Your task to perform on an android device: turn off priority inbox in the gmail app Image 0: 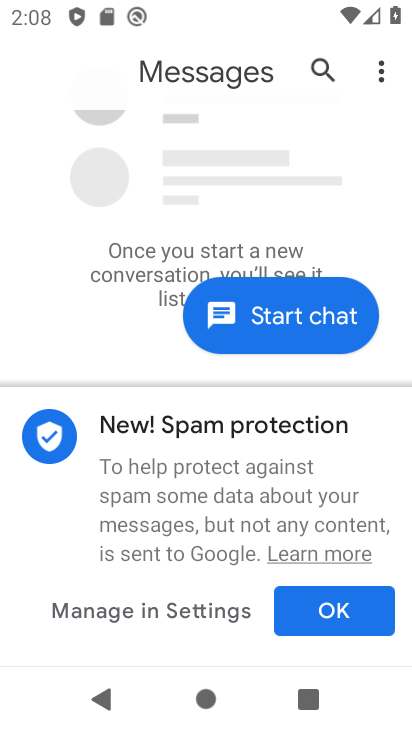
Step 0: press home button
Your task to perform on an android device: turn off priority inbox in the gmail app Image 1: 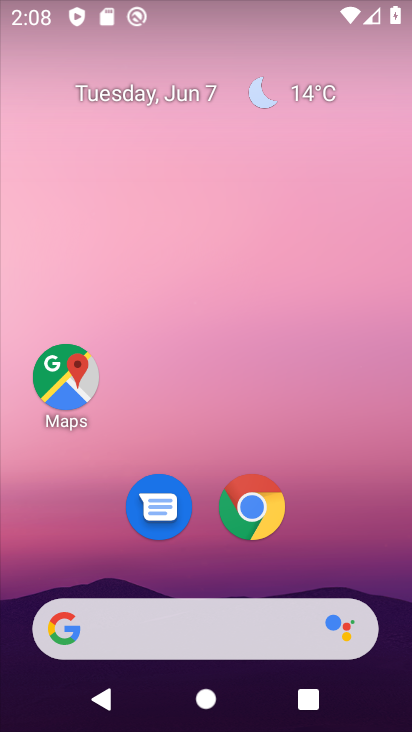
Step 1: drag from (367, 547) to (321, 40)
Your task to perform on an android device: turn off priority inbox in the gmail app Image 2: 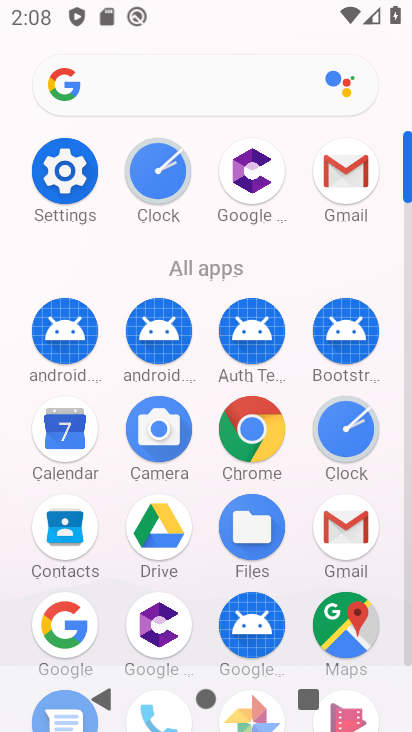
Step 2: click (360, 184)
Your task to perform on an android device: turn off priority inbox in the gmail app Image 3: 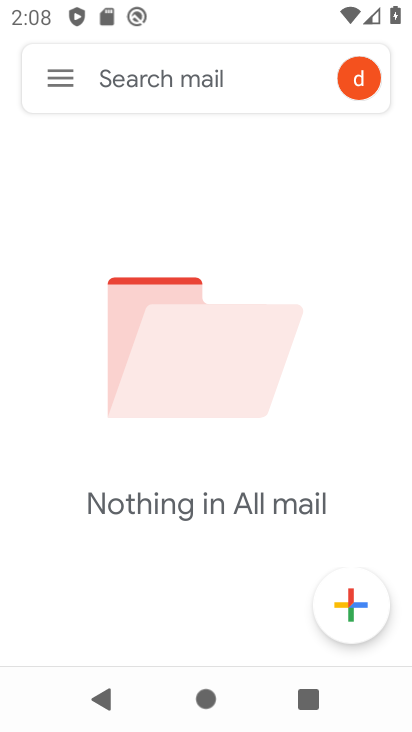
Step 3: click (49, 73)
Your task to perform on an android device: turn off priority inbox in the gmail app Image 4: 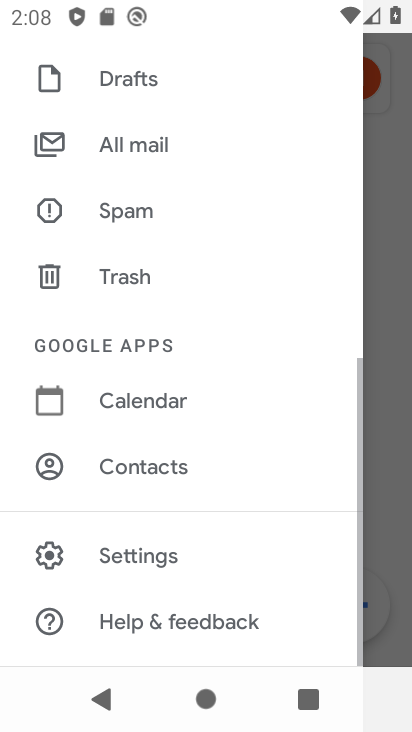
Step 4: click (168, 568)
Your task to perform on an android device: turn off priority inbox in the gmail app Image 5: 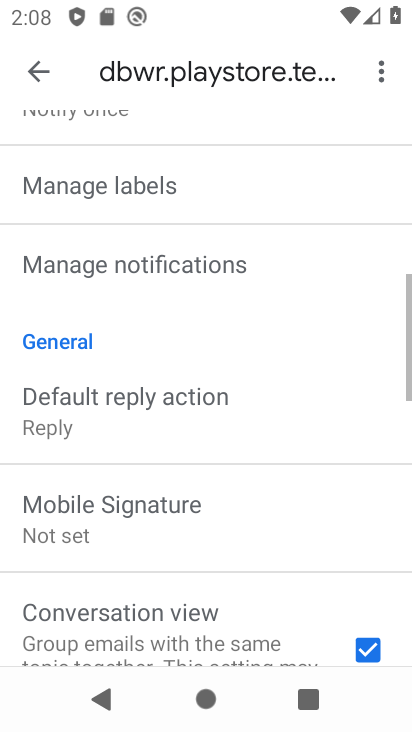
Step 5: drag from (197, 231) to (207, 634)
Your task to perform on an android device: turn off priority inbox in the gmail app Image 6: 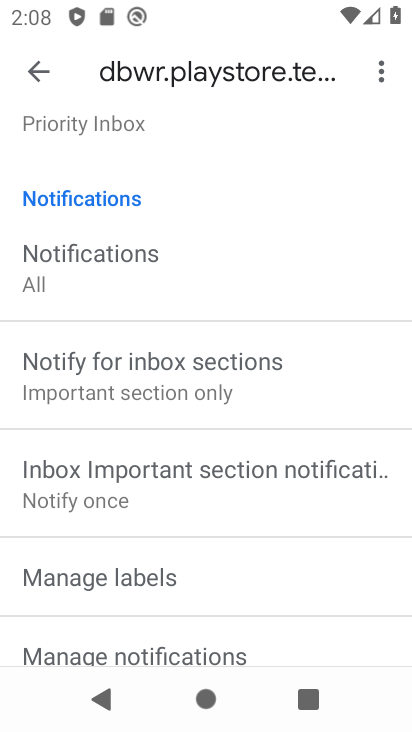
Step 6: drag from (126, 198) to (174, 531)
Your task to perform on an android device: turn off priority inbox in the gmail app Image 7: 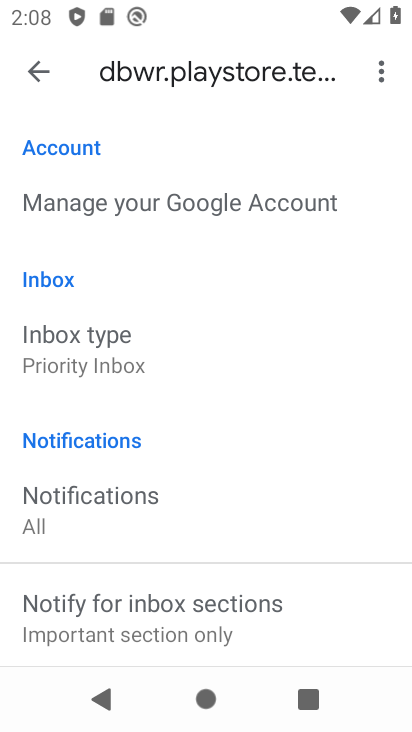
Step 7: click (107, 342)
Your task to perform on an android device: turn off priority inbox in the gmail app Image 8: 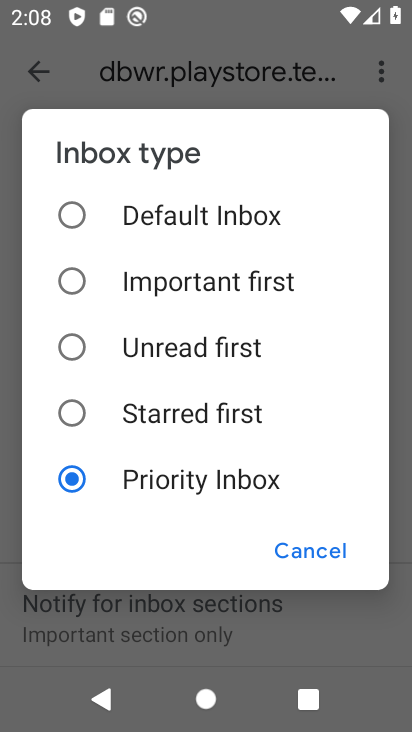
Step 8: task complete